Your task to perform on an android device: Do I have any events tomorrow? Image 0: 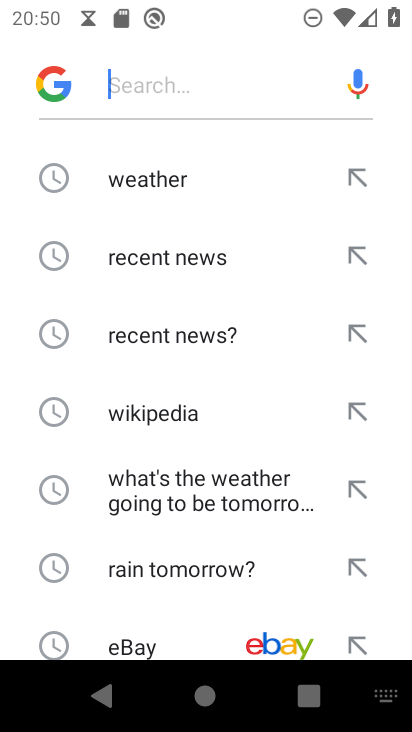
Step 0: press home button
Your task to perform on an android device: Do I have any events tomorrow? Image 1: 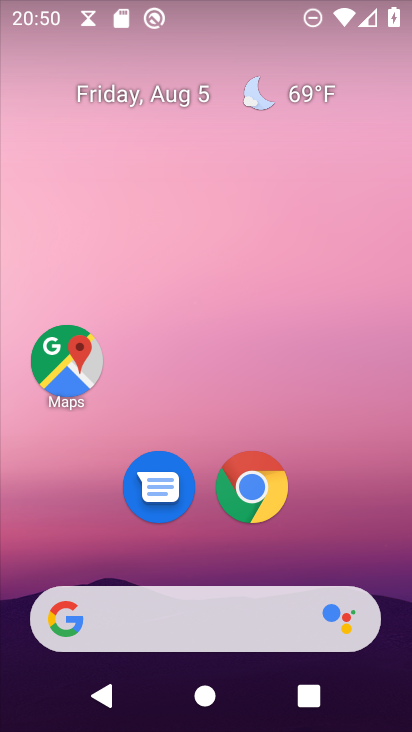
Step 1: drag from (146, 621) to (188, 138)
Your task to perform on an android device: Do I have any events tomorrow? Image 2: 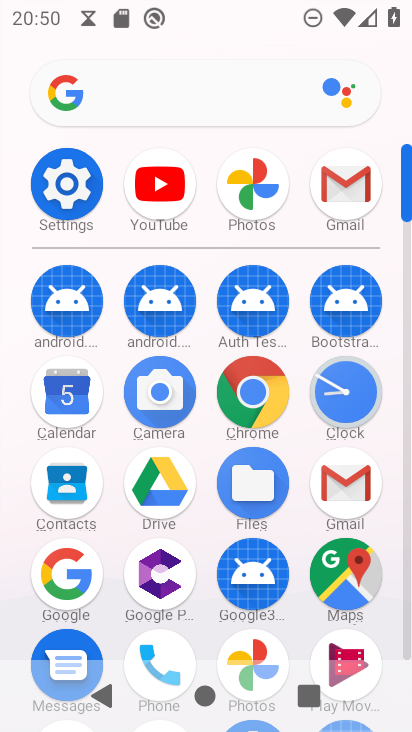
Step 2: click (67, 404)
Your task to perform on an android device: Do I have any events tomorrow? Image 3: 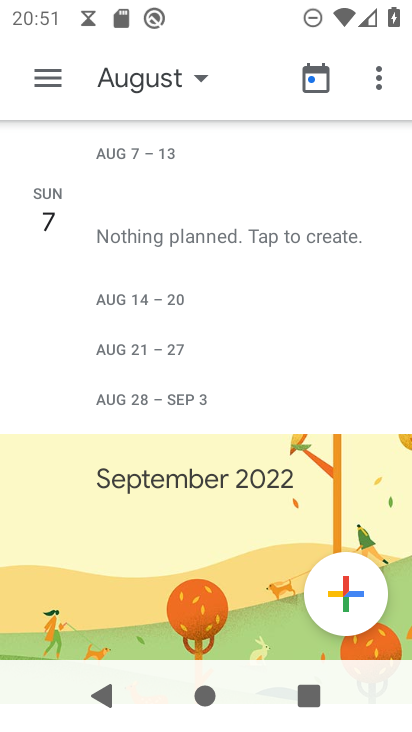
Step 3: click (143, 77)
Your task to perform on an android device: Do I have any events tomorrow? Image 4: 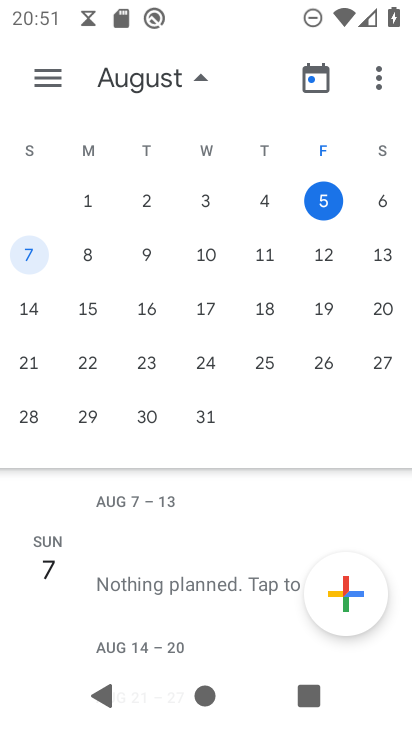
Step 4: click (383, 195)
Your task to perform on an android device: Do I have any events tomorrow? Image 5: 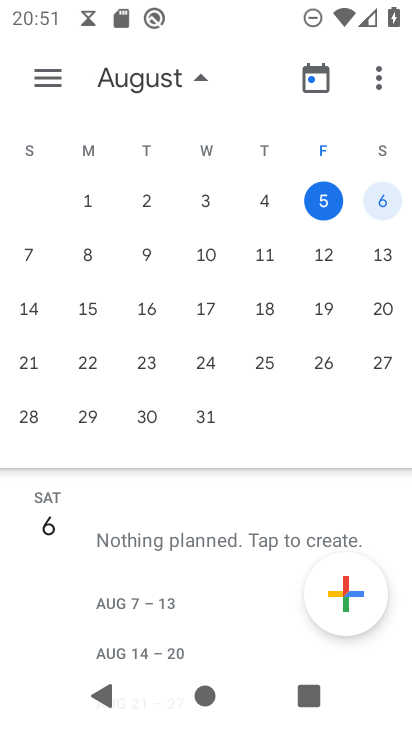
Step 5: click (46, 82)
Your task to perform on an android device: Do I have any events tomorrow? Image 6: 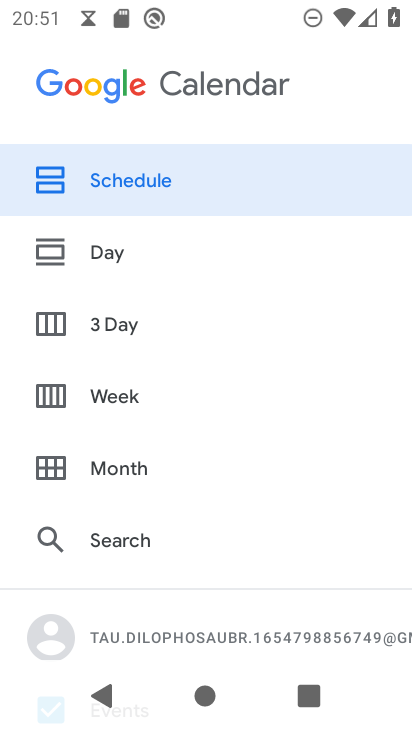
Step 6: click (107, 249)
Your task to perform on an android device: Do I have any events tomorrow? Image 7: 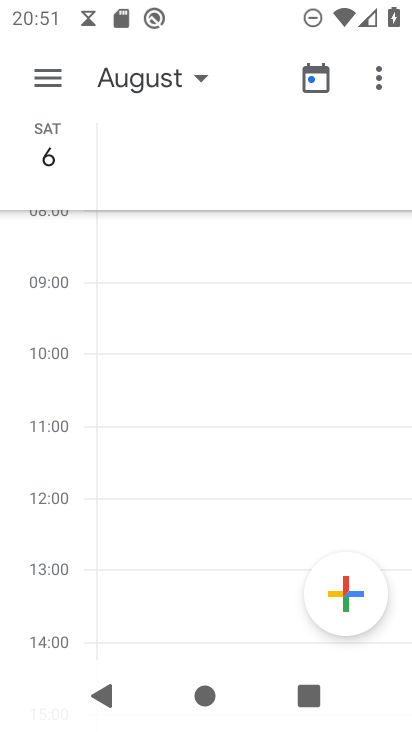
Step 7: click (48, 71)
Your task to perform on an android device: Do I have any events tomorrow? Image 8: 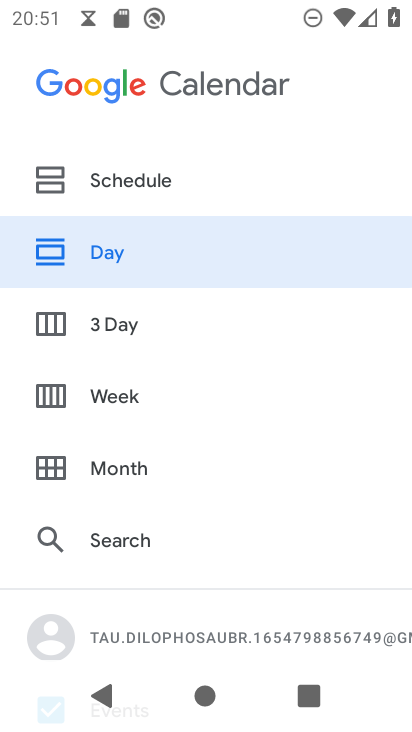
Step 8: click (115, 184)
Your task to perform on an android device: Do I have any events tomorrow? Image 9: 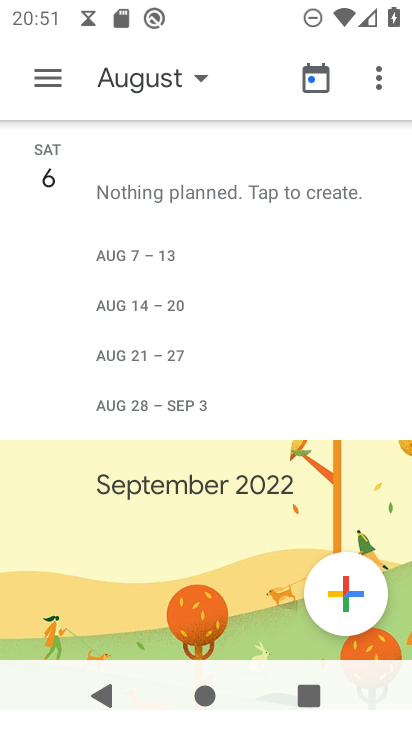
Step 9: task complete